Your task to perform on an android device: all mails in gmail Image 0: 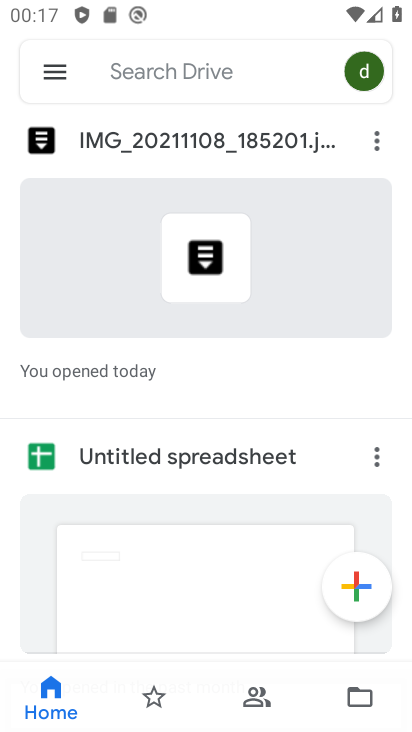
Step 0: press home button
Your task to perform on an android device: all mails in gmail Image 1: 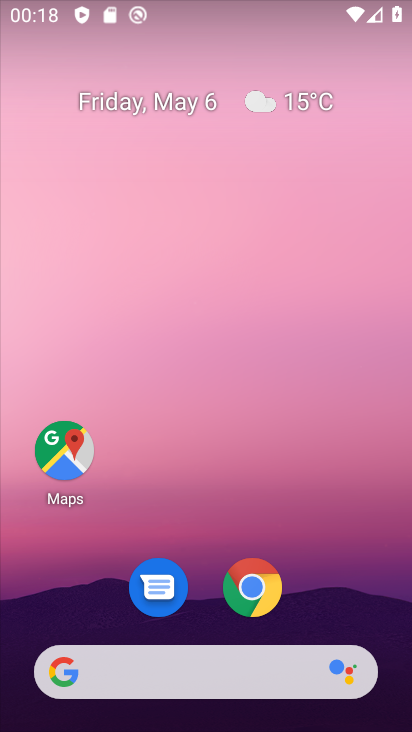
Step 1: drag from (360, 464) to (406, 158)
Your task to perform on an android device: all mails in gmail Image 2: 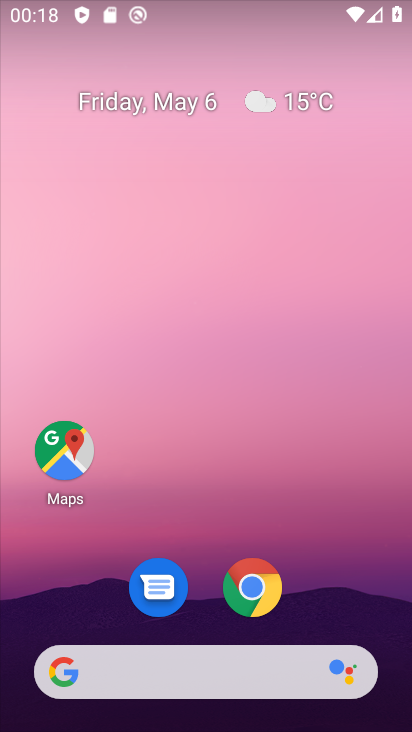
Step 2: drag from (381, 494) to (405, 187)
Your task to perform on an android device: all mails in gmail Image 3: 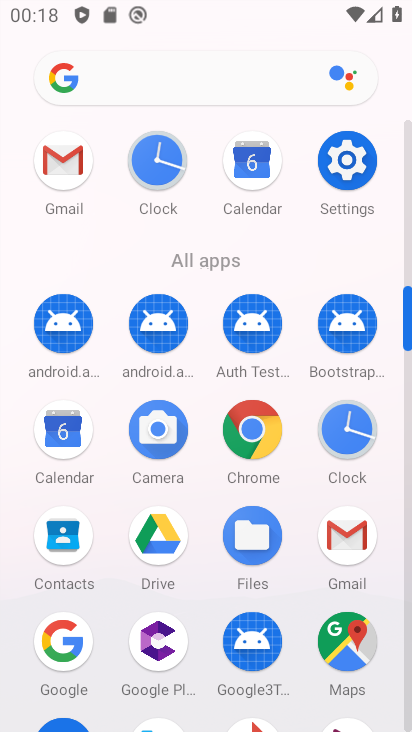
Step 3: click (352, 532)
Your task to perform on an android device: all mails in gmail Image 4: 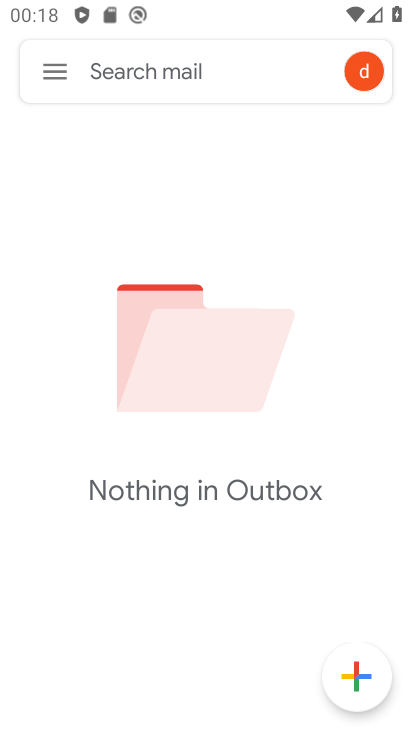
Step 4: click (51, 74)
Your task to perform on an android device: all mails in gmail Image 5: 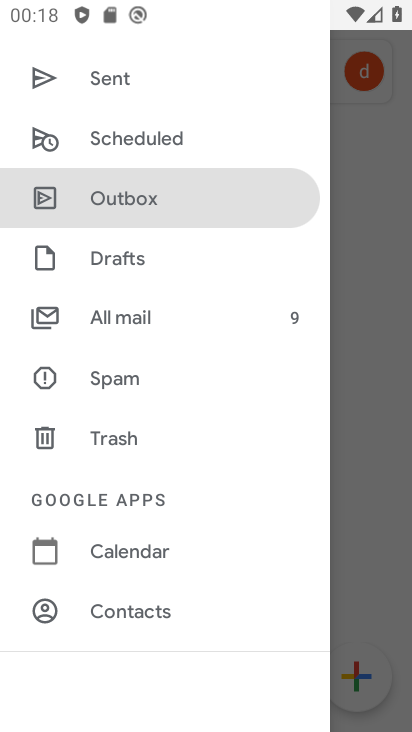
Step 5: click (108, 318)
Your task to perform on an android device: all mails in gmail Image 6: 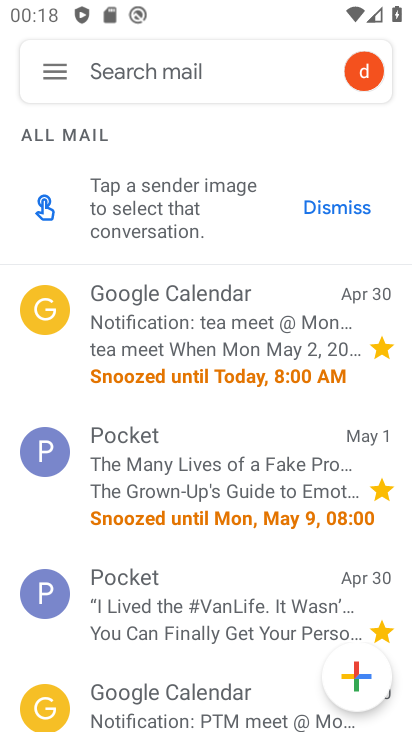
Step 6: task complete